Your task to perform on an android device: move a message to another label in the gmail app Image 0: 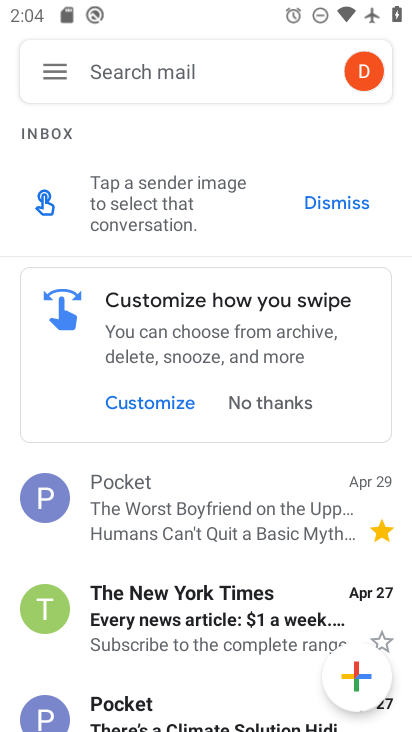
Step 0: drag from (234, 546) to (252, 295)
Your task to perform on an android device: move a message to another label in the gmail app Image 1: 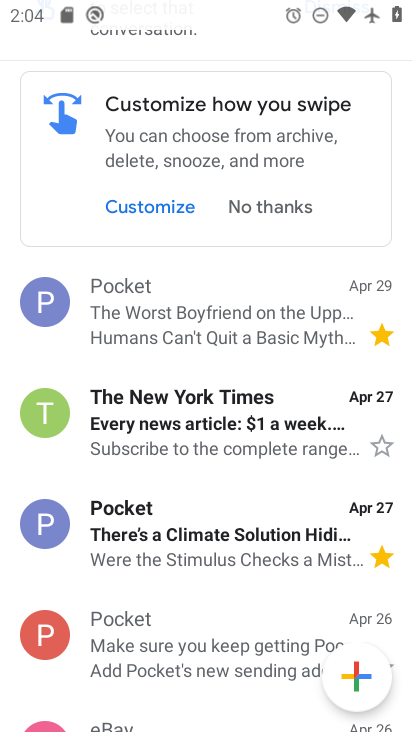
Step 1: click (219, 308)
Your task to perform on an android device: move a message to another label in the gmail app Image 2: 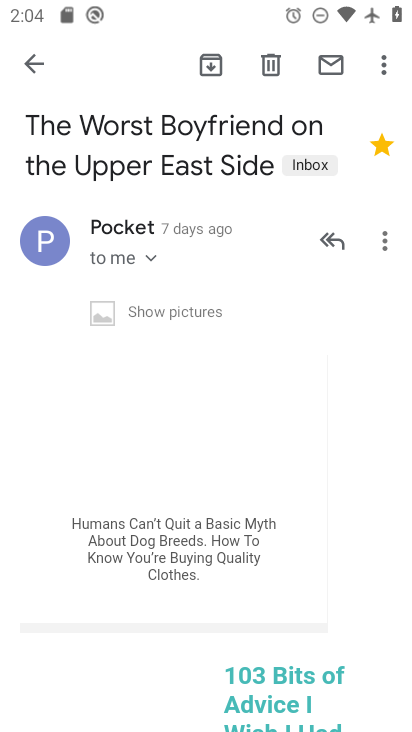
Step 2: click (305, 160)
Your task to perform on an android device: move a message to another label in the gmail app Image 3: 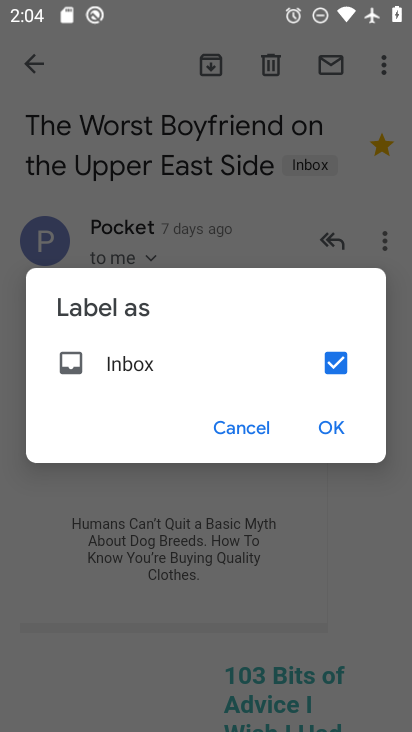
Step 3: click (339, 357)
Your task to perform on an android device: move a message to another label in the gmail app Image 4: 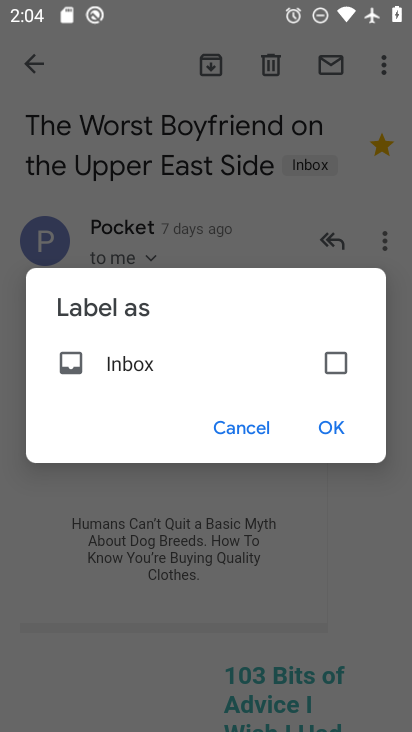
Step 4: click (327, 421)
Your task to perform on an android device: move a message to another label in the gmail app Image 5: 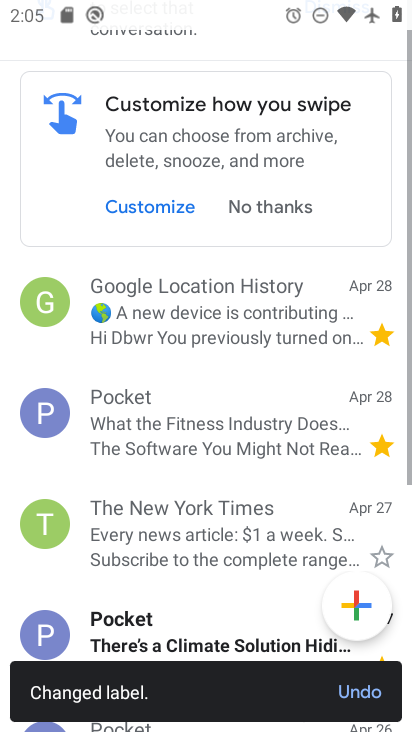
Step 5: task complete